Your task to perform on an android device: check battery use Image 0: 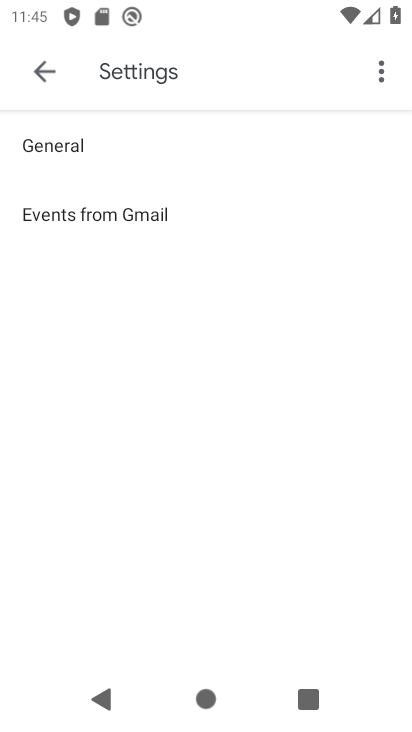
Step 0: press home button
Your task to perform on an android device: check battery use Image 1: 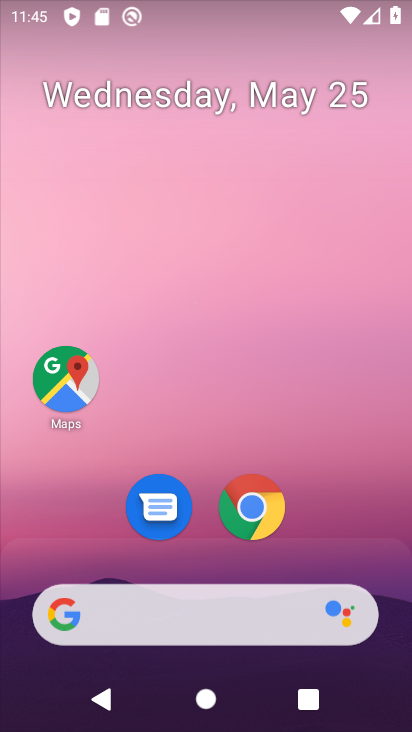
Step 1: drag from (204, 560) to (216, 211)
Your task to perform on an android device: check battery use Image 2: 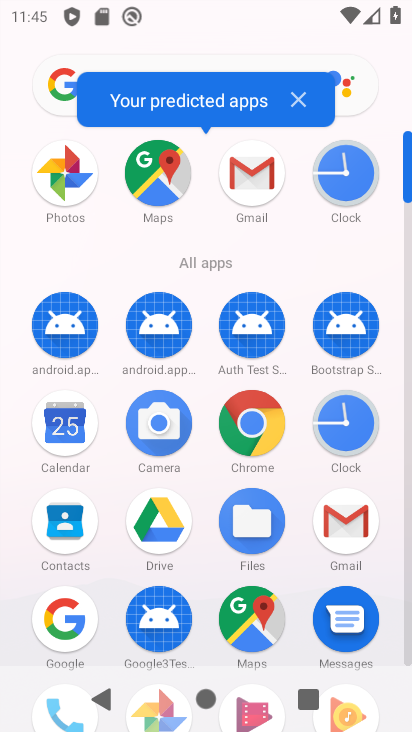
Step 2: drag from (215, 529) to (220, 276)
Your task to perform on an android device: check battery use Image 3: 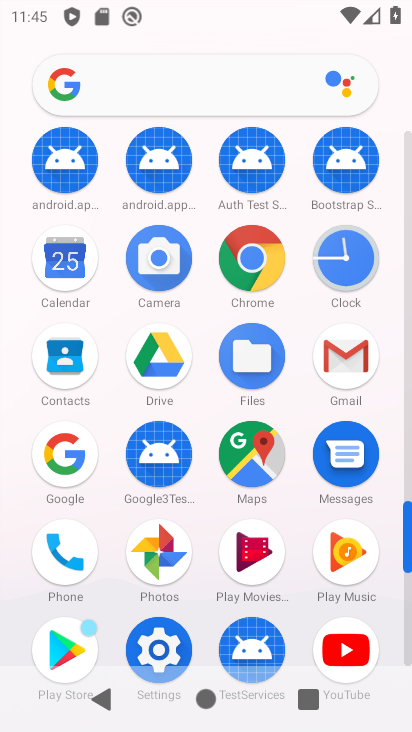
Step 3: click (172, 638)
Your task to perform on an android device: check battery use Image 4: 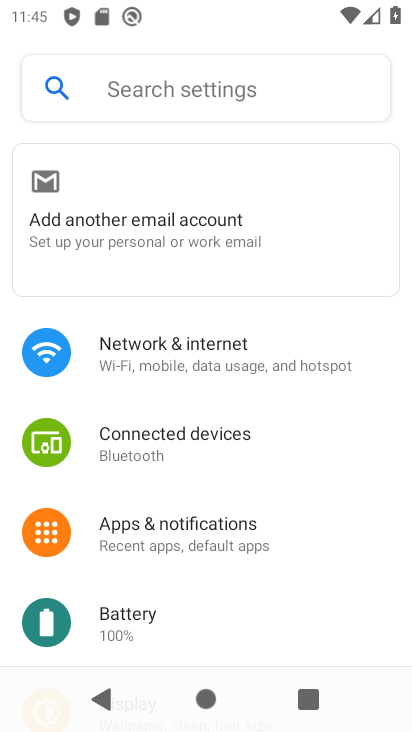
Step 4: click (210, 601)
Your task to perform on an android device: check battery use Image 5: 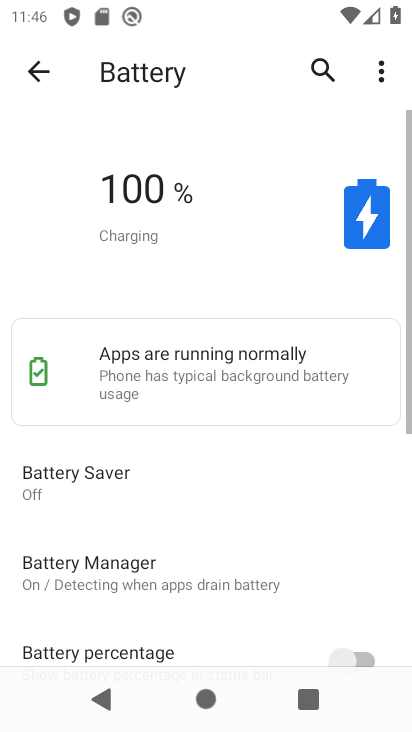
Step 5: drag from (184, 615) to (189, 460)
Your task to perform on an android device: check battery use Image 6: 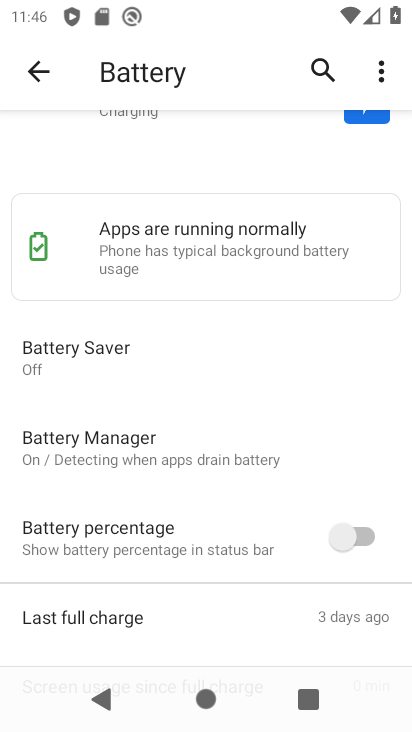
Step 6: click (376, 74)
Your task to perform on an android device: check battery use Image 7: 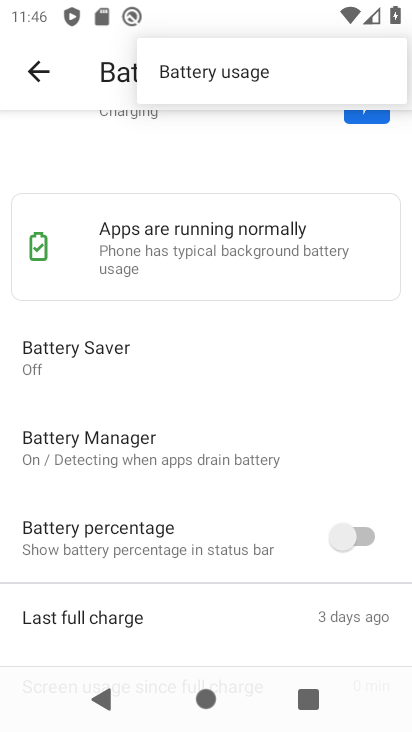
Step 7: click (259, 87)
Your task to perform on an android device: check battery use Image 8: 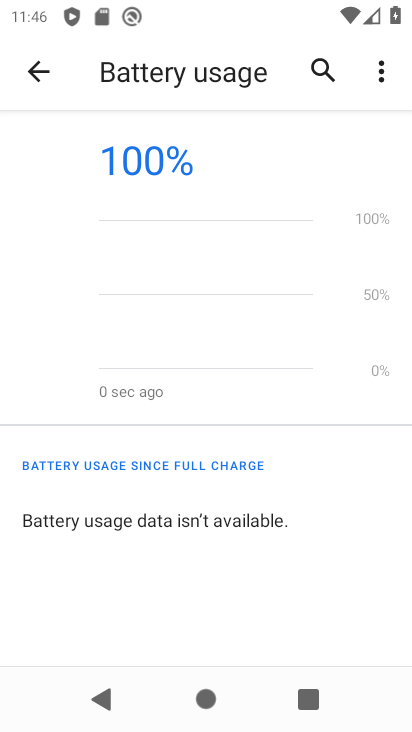
Step 8: task complete